Your task to perform on an android device: turn notification dots on Image 0: 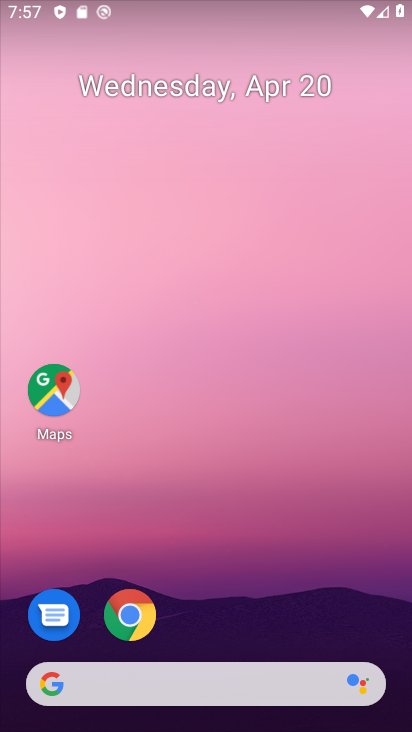
Step 0: drag from (240, 619) to (322, 54)
Your task to perform on an android device: turn notification dots on Image 1: 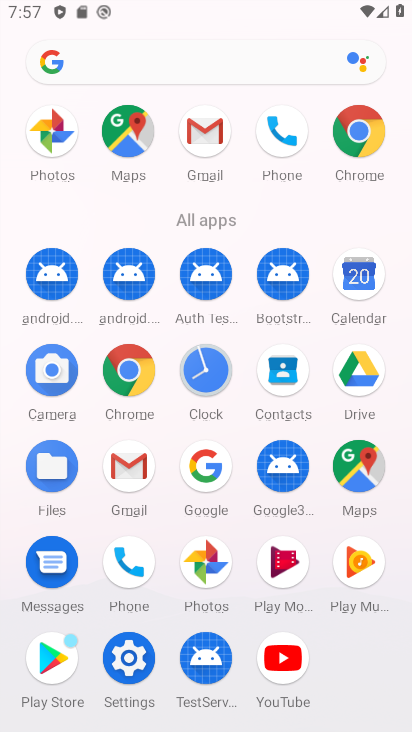
Step 1: click (131, 661)
Your task to perform on an android device: turn notification dots on Image 2: 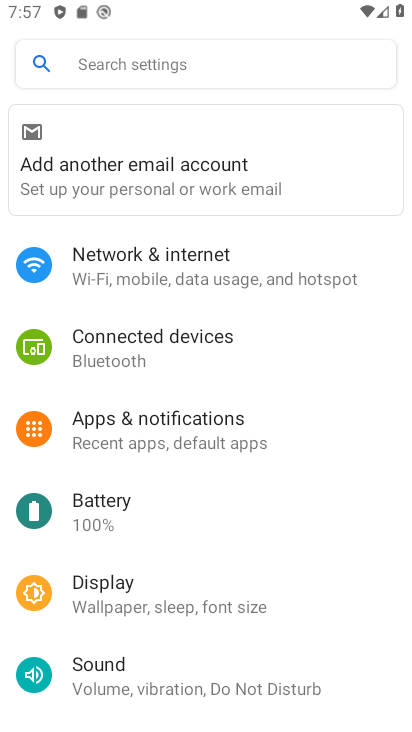
Step 2: click (213, 421)
Your task to perform on an android device: turn notification dots on Image 3: 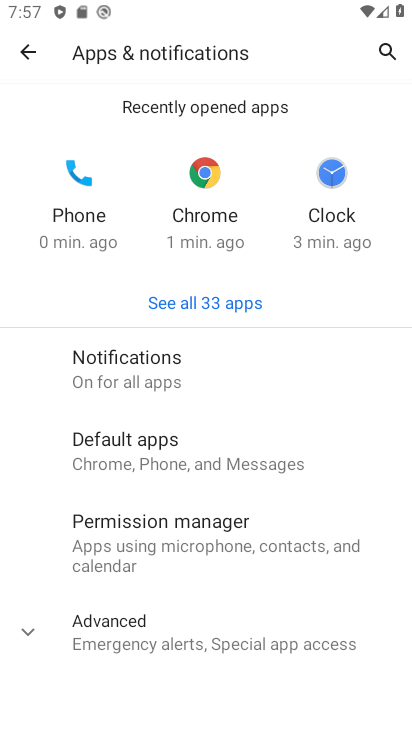
Step 3: click (150, 360)
Your task to perform on an android device: turn notification dots on Image 4: 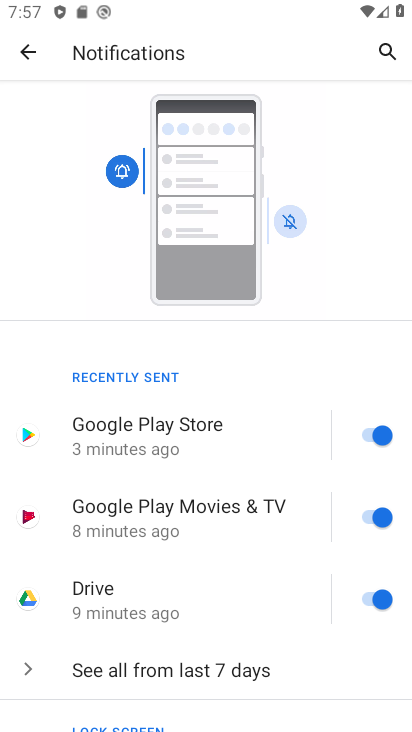
Step 4: drag from (239, 607) to (304, 400)
Your task to perform on an android device: turn notification dots on Image 5: 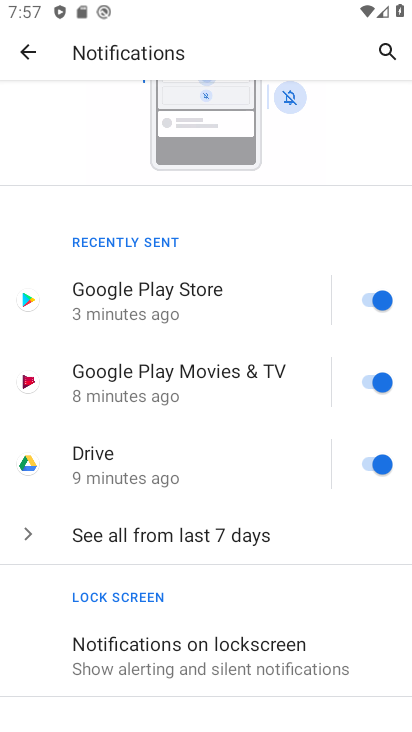
Step 5: drag from (209, 595) to (279, 419)
Your task to perform on an android device: turn notification dots on Image 6: 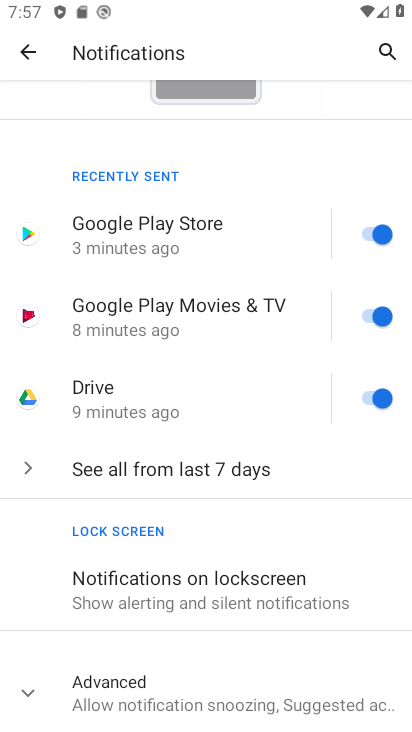
Step 6: click (170, 699)
Your task to perform on an android device: turn notification dots on Image 7: 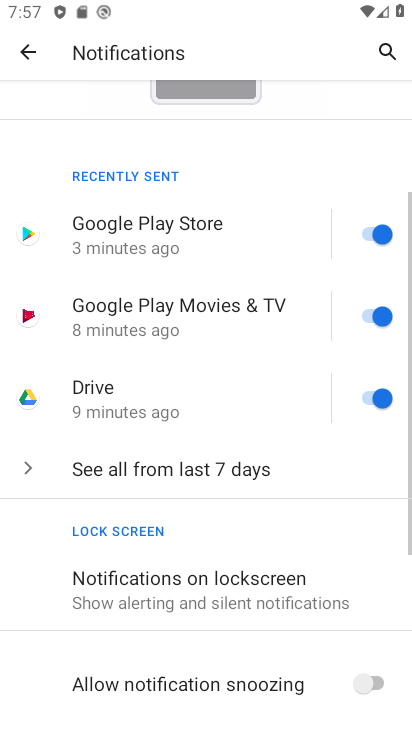
Step 7: task complete